Your task to perform on an android device: Show me the alarms in the clock app Image 0: 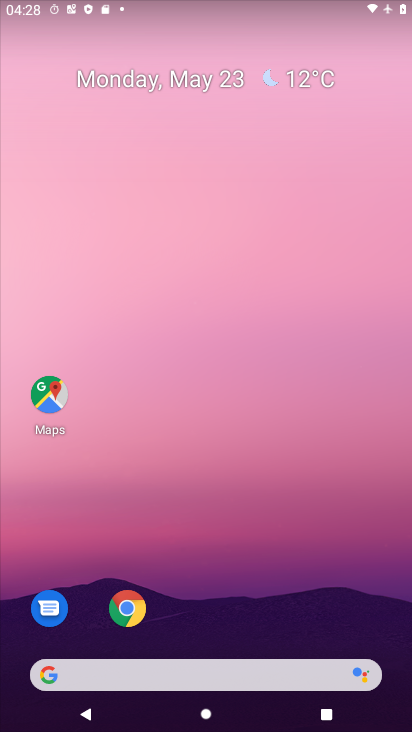
Step 0: drag from (301, 493) to (192, 10)
Your task to perform on an android device: Show me the alarms in the clock app Image 1: 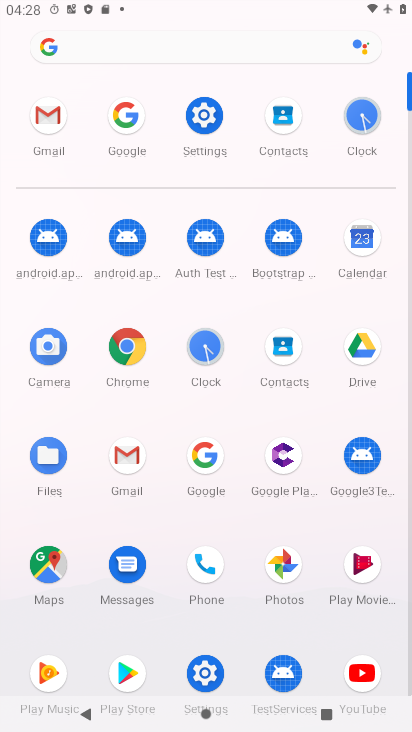
Step 1: click (222, 342)
Your task to perform on an android device: Show me the alarms in the clock app Image 2: 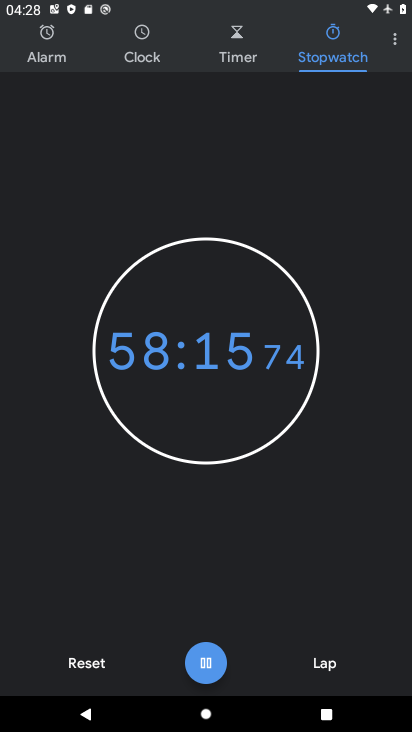
Step 2: click (64, 38)
Your task to perform on an android device: Show me the alarms in the clock app Image 3: 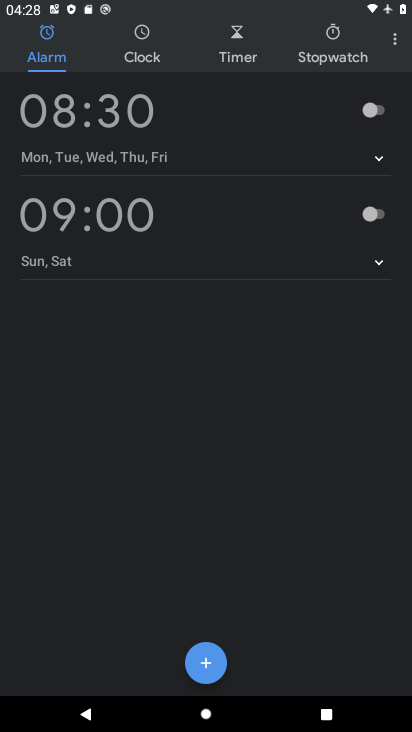
Step 3: task complete